Your task to perform on an android device: Search for Italian restaurants on Maps Image 0: 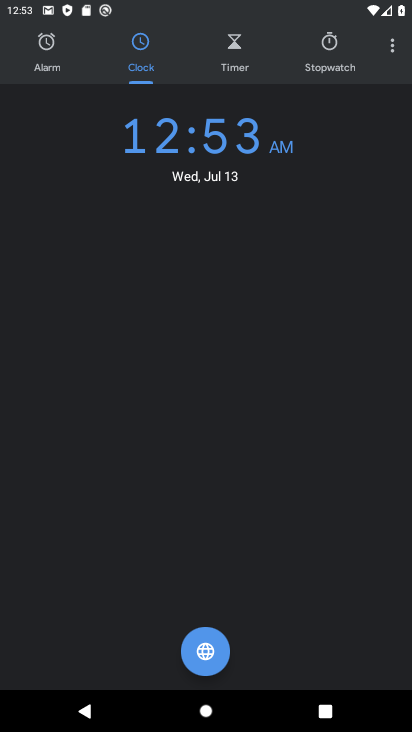
Step 0: press home button
Your task to perform on an android device: Search for Italian restaurants on Maps Image 1: 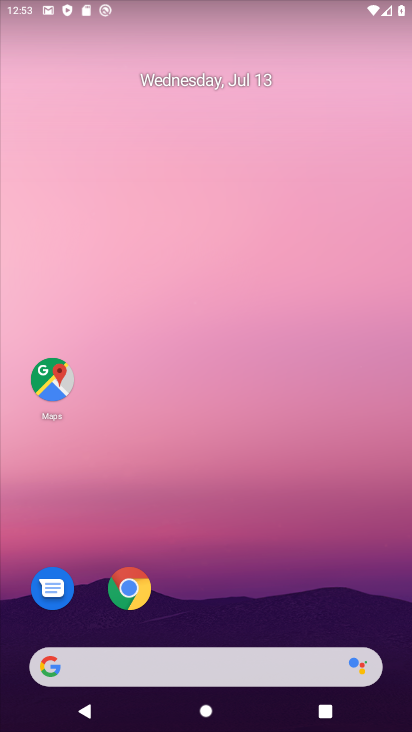
Step 1: click (45, 383)
Your task to perform on an android device: Search for Italian restaurants on Maps Image 2: 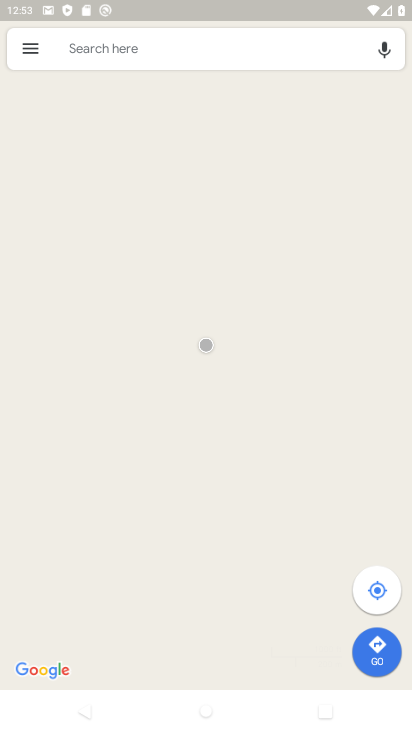
Step 2: click (171, 50)
Your task to perform on an android device: Search for Italian restaurants on Maps Image 3: 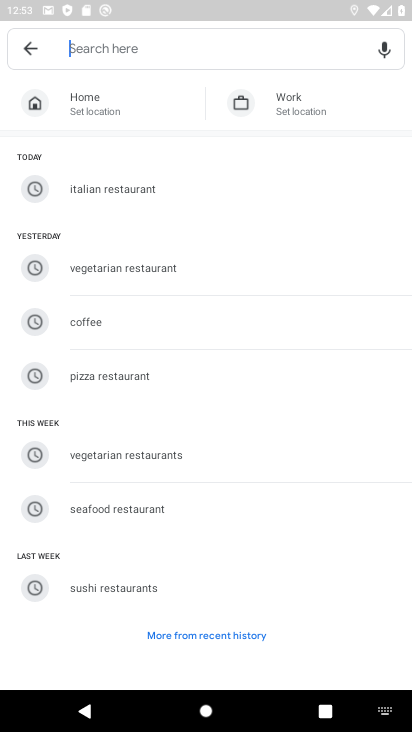
Step 3: click (126, 188)
Your task to perform on an android device: Search for Italian restaurants on Maps Image 4: 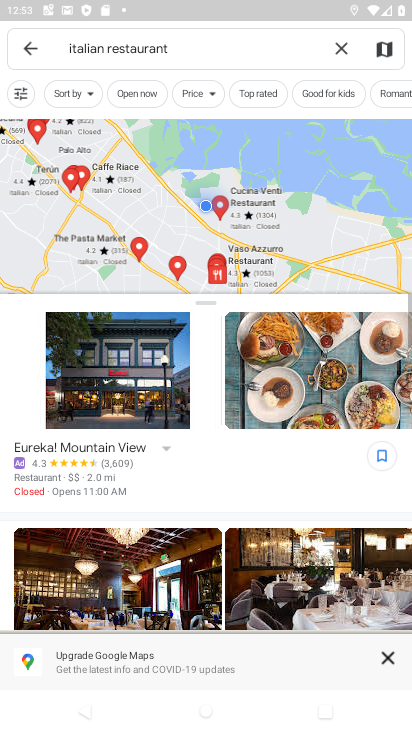
Step 4: task complete